Your task to perform on an android device: install app "Nova Launcher" Image 0: 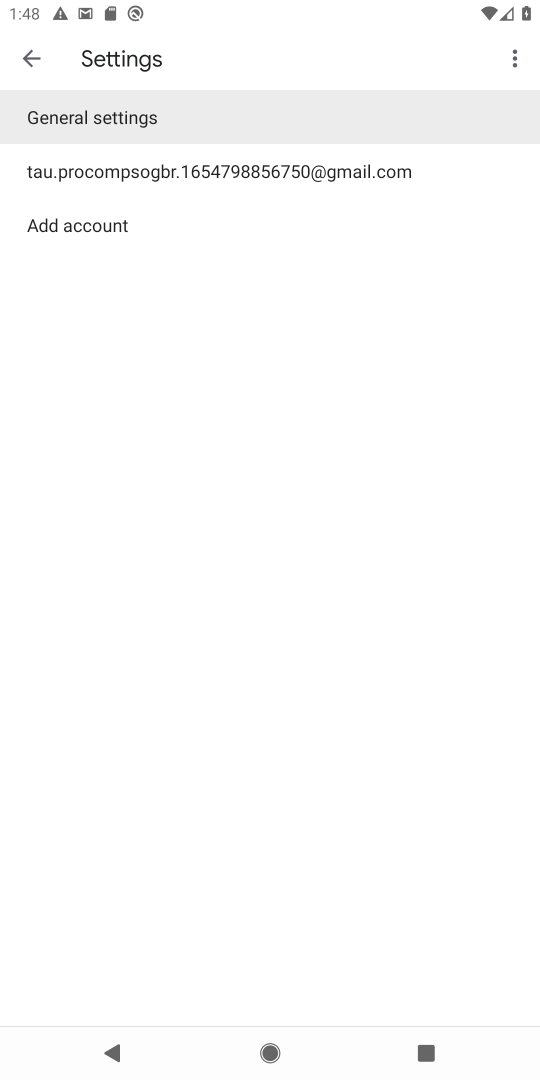
Step 0: press home button
Your task to perform on an android device: install app "Nova Launcher" Image 1: 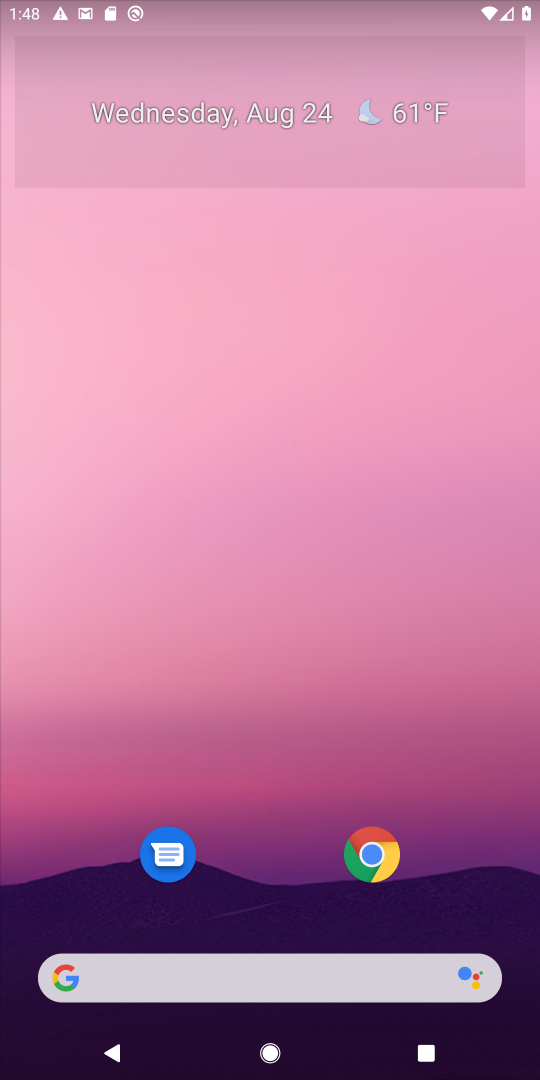
Step 1: drag from (467, 728) to (448, 60)
Your task to perform on an android device: install app "Nova Launcher" Image 2: 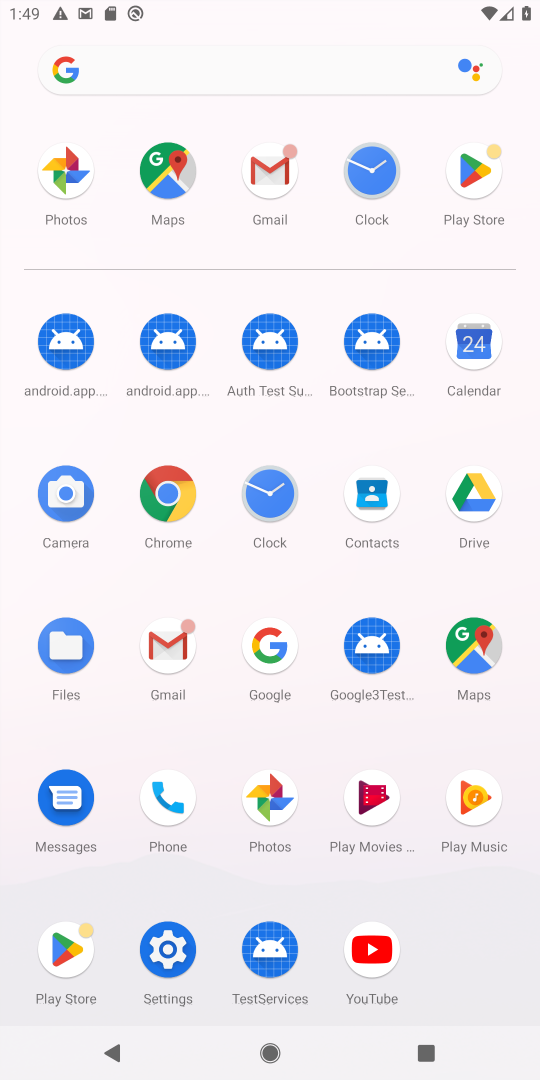
Step 2: click (469, 169)
Your task to perform on an android device: install app "Nova Launcher" Image 3: 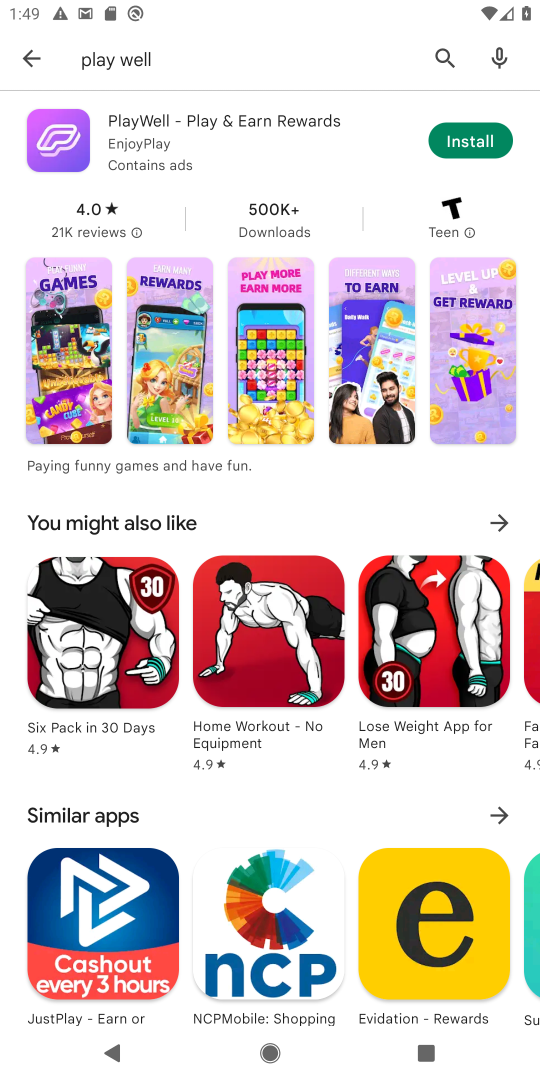
Step 3: press back button
Your task to perform on an android device: install app "Nova Launcher" Image 4: 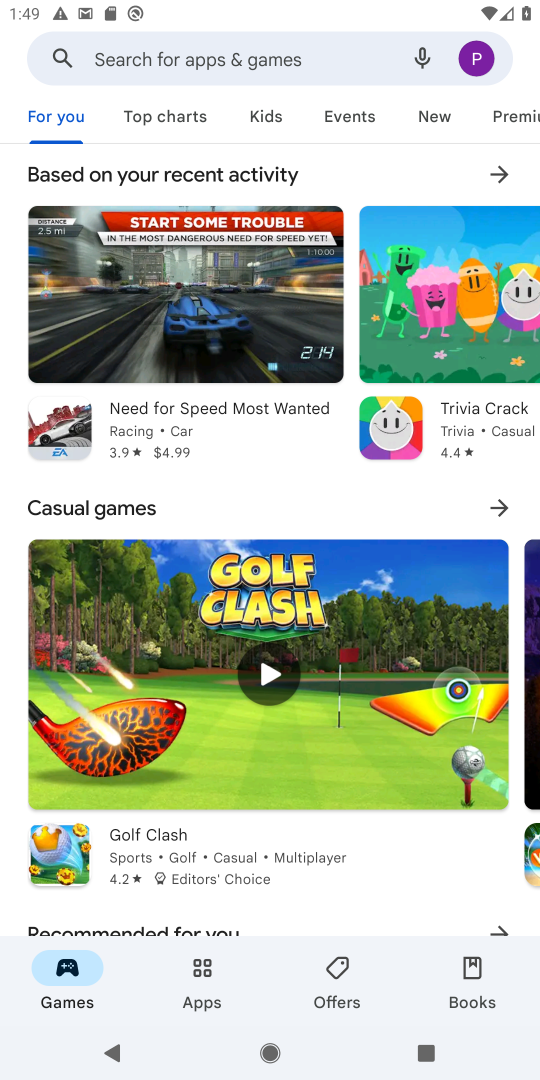
Step 4: click (253, 53)
Your task to perform on an android device: install app "Nova Launcher" Image 5: 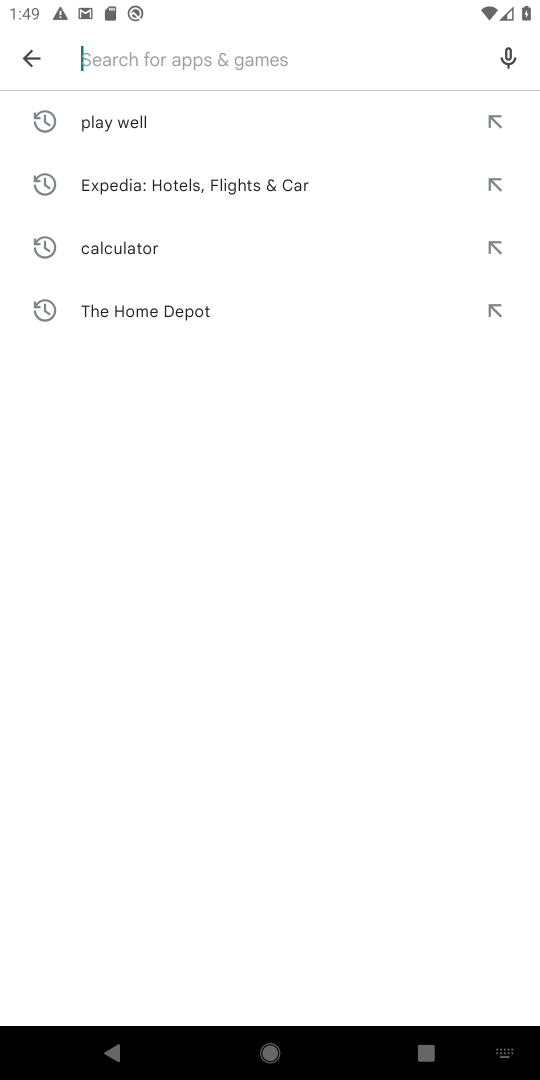
Step 5: press enter
Your task to perform on an android device: install app "Nova Launcher" Image 6: 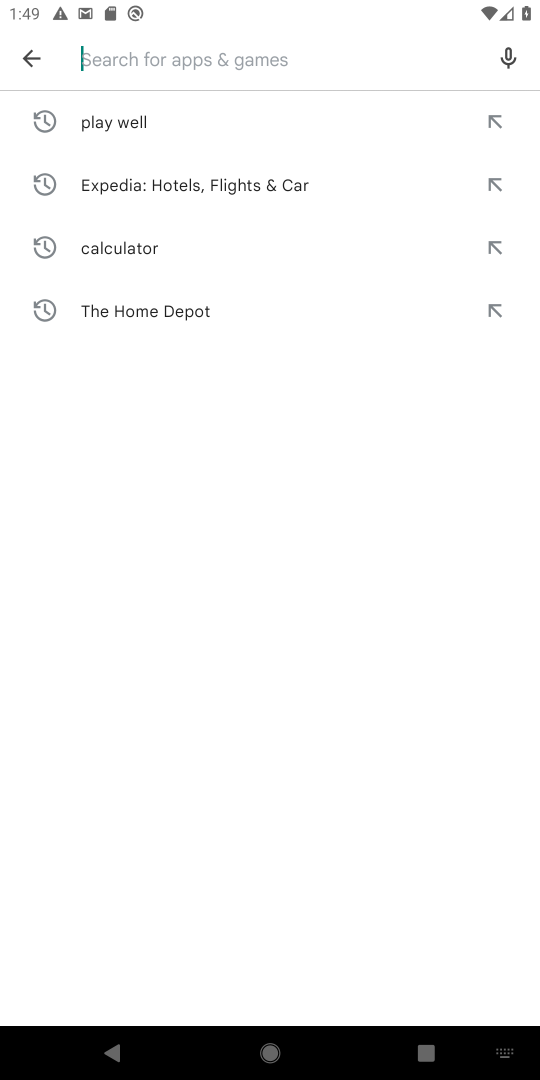
Step 6: type "nova launcher"
Your task to perform on an android device: install app "Nova Launcher" Image 7: 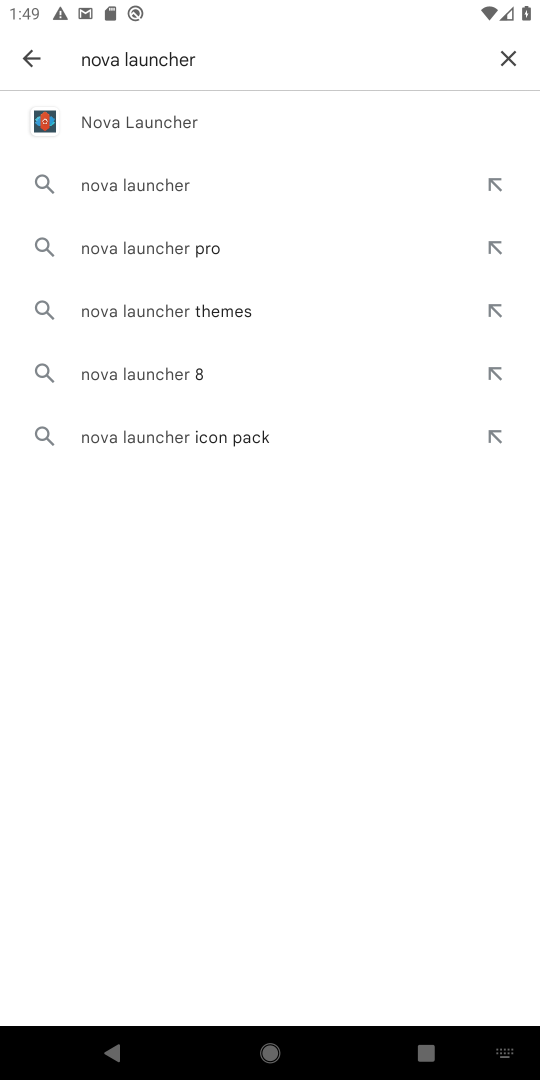
Step 7: click (115, 128)
Your task to perform on an android device: install app "Nova Launcher" Image 8: 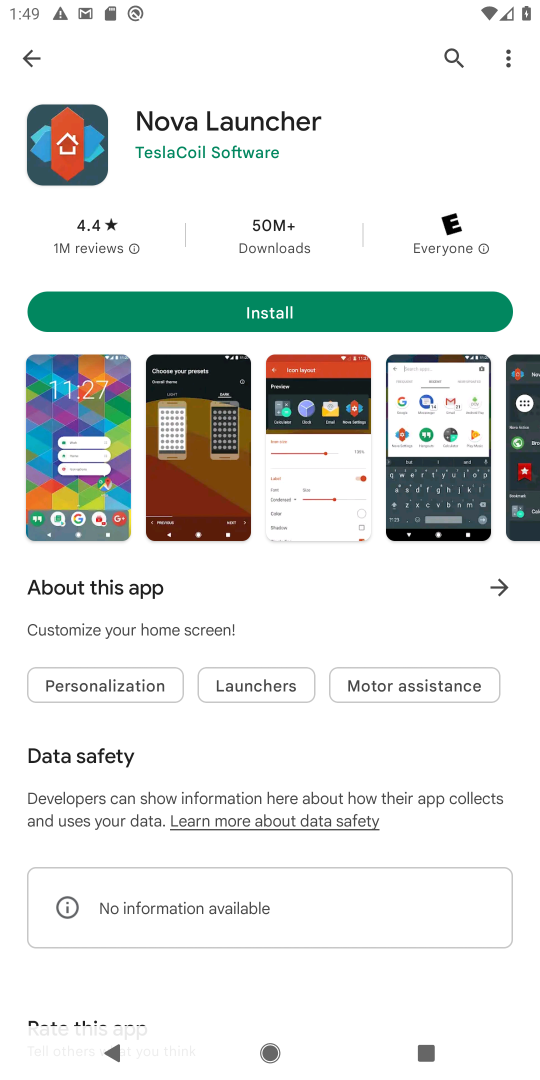
Step 8: click (413, 308)
Your task to perform on an android device: install app "Nova Launcher" Image 9: 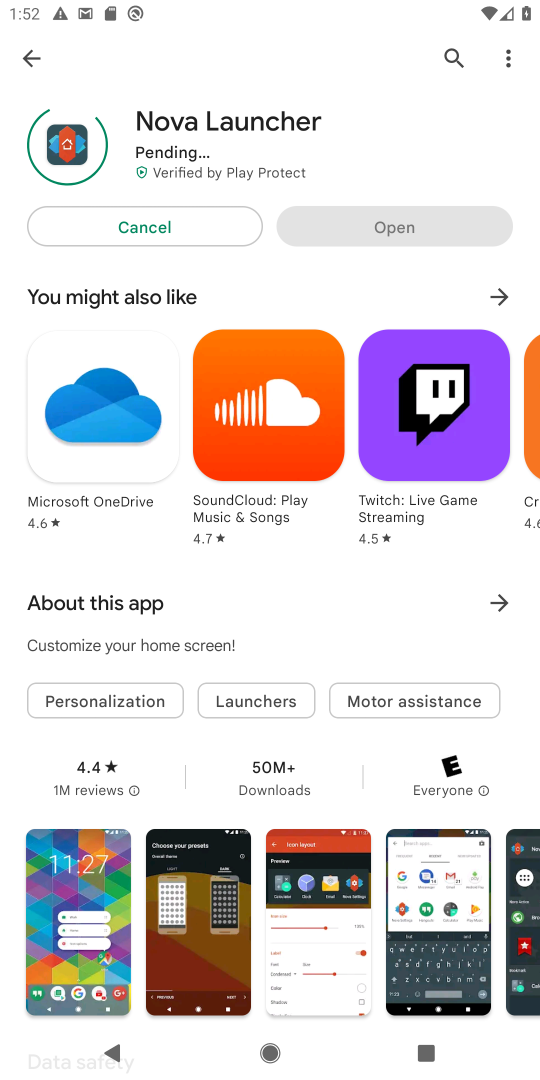
Step 9: task complete